Your task to perform on an android device: open a new tab in the chrome app Image 0: 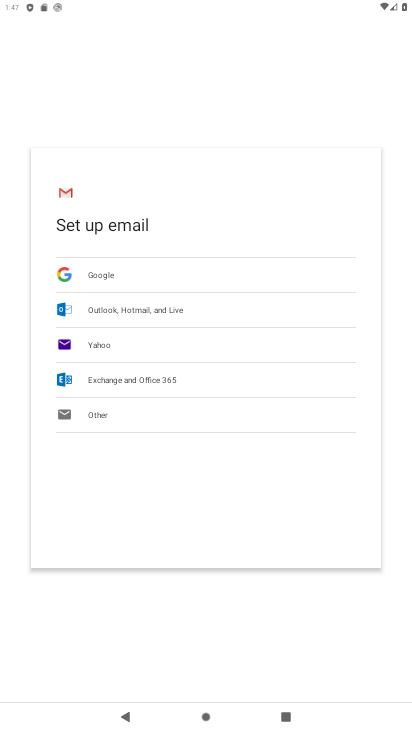
Step 0: press home button
Your task to perform on an android device: open a new tab in the chrome app Image 1: 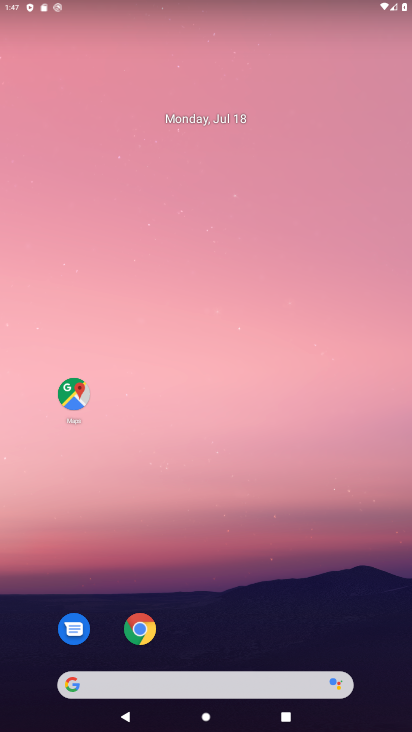
Step 1: click (136, 633)
Your task to perform on an android device: open a new tab in the chrome app Image 2: 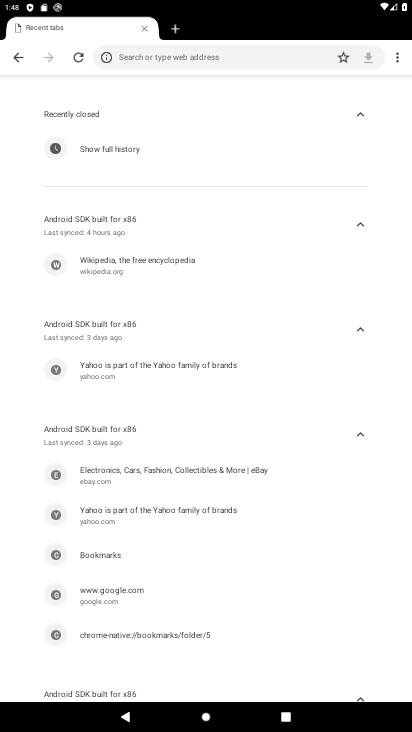
Step 2: click (184, 20)
Your task to perform on an android device: open a new tab in the chrome app Image 3: 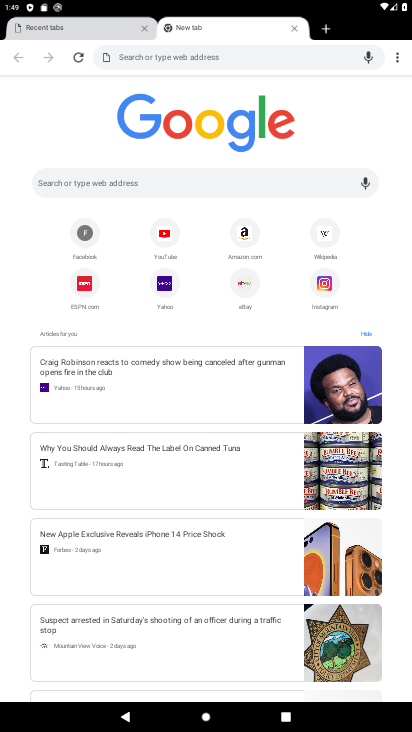
Step 3: task complete